Your task to perform on an android device: show emergency info Image 0: 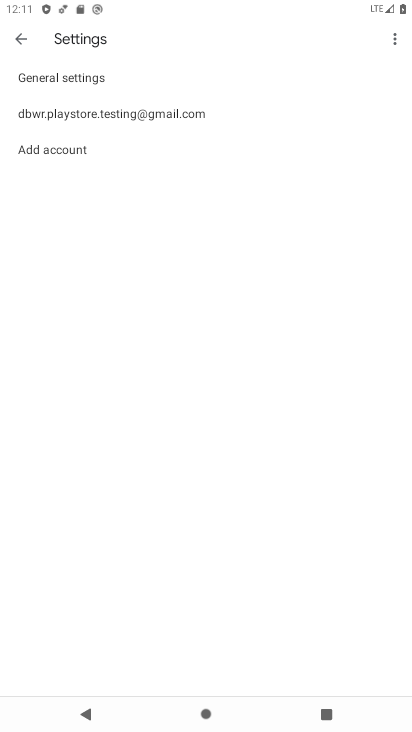
Step 0: press home button
Your task to perform on an android device: show emergency info Image 1: 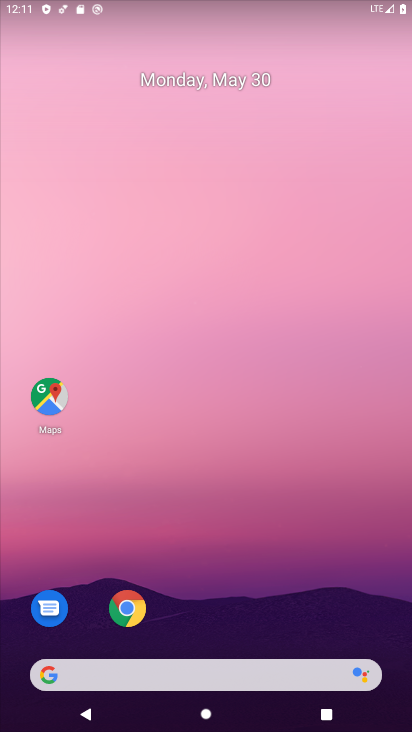
Step 1: drag from (227, 555) to (264, 106)
Your task to perform on an android device: show emergency info Image 2: 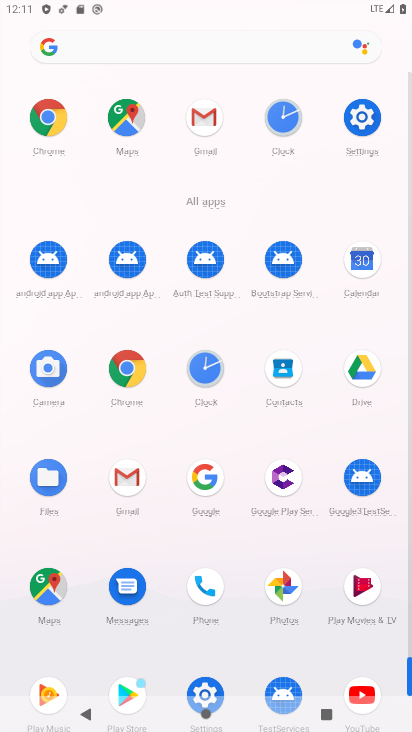
Step 2: drag from (211, 632) to (235, 404)
Your task to perform on an android device: show emergency info Image 3: 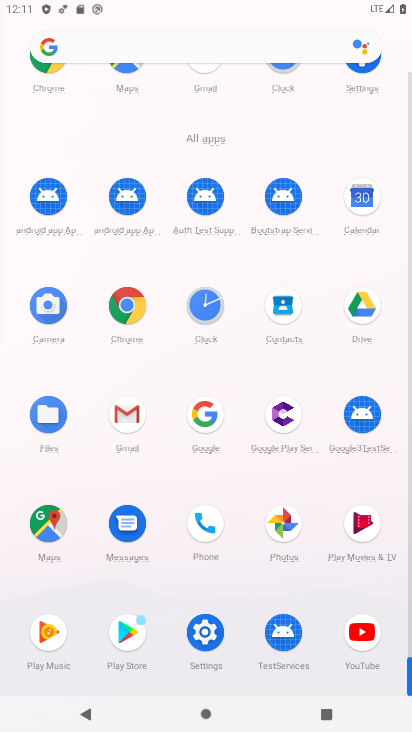
Step 3: click (199, 636)
Your task to perform on an android device: show emergency info Image 4: 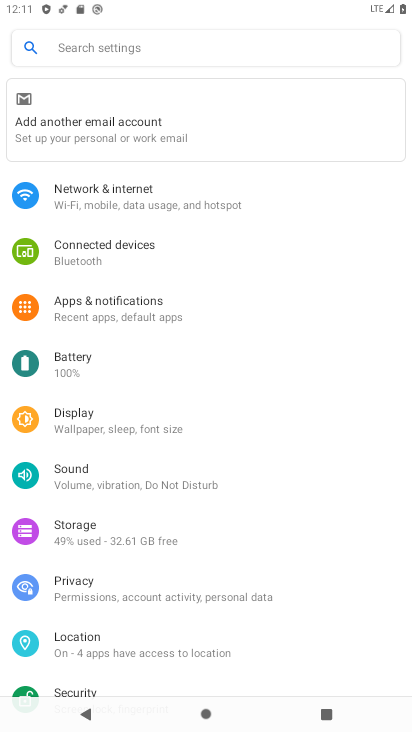
Step 4: drag from (176, 508) to (211, 295)
Your task to perform on an android device: show emergency info Image 5: 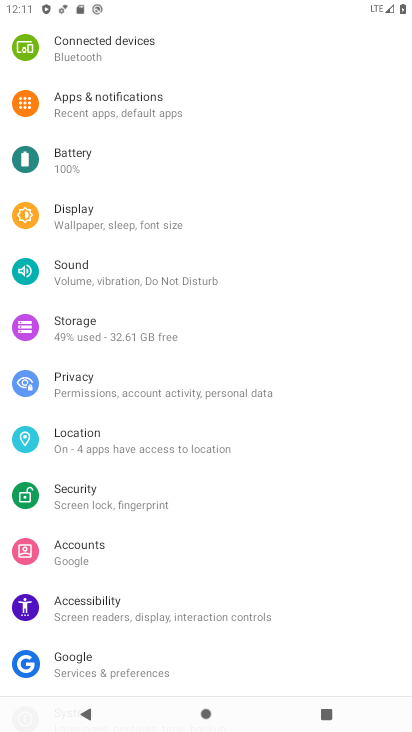
Step 5: drag from (183, 589) to (246, 276)
Your task to perform on an android device: show emergency info Image 6: 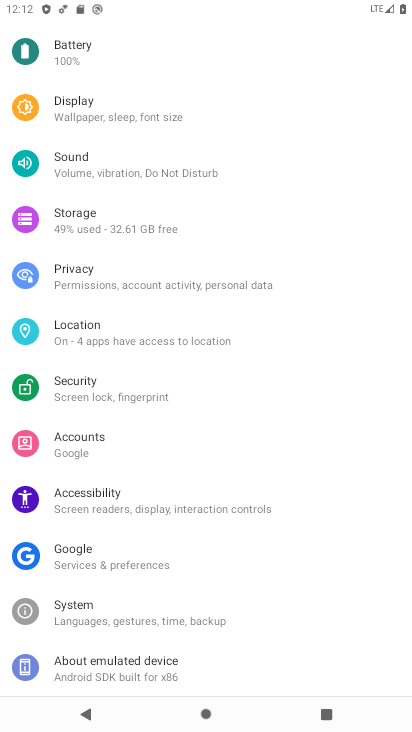
Step 6: drag from (122, 661) to (141, 498)
Your task to perform on an android device: show emergency info Image 7: 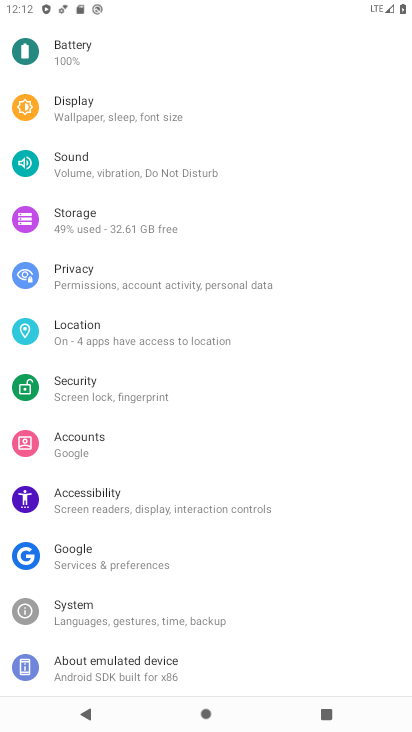
Step 7: click (122, 678)
Your task to perform on an android device: show emergency info Image 8: 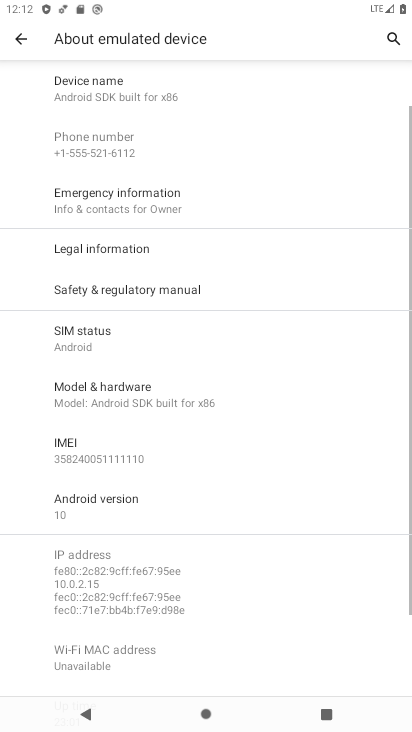
Step 8: click (148, 204)
Your task to perform on an android device: show emergency info Image 9: 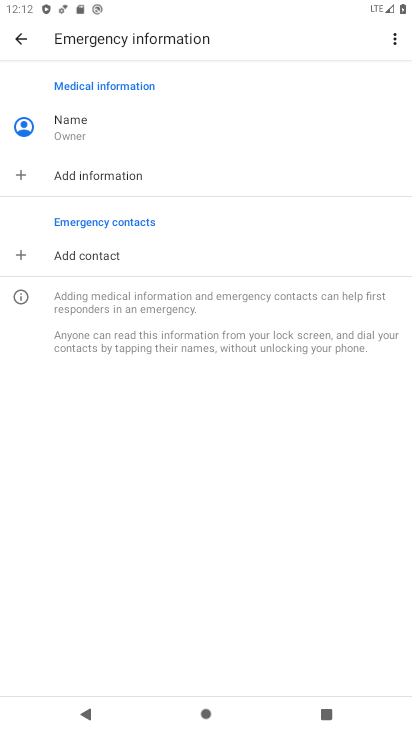
Step 9: task complete